Your task to perform on an android device: turn off airplane mode Image 0: 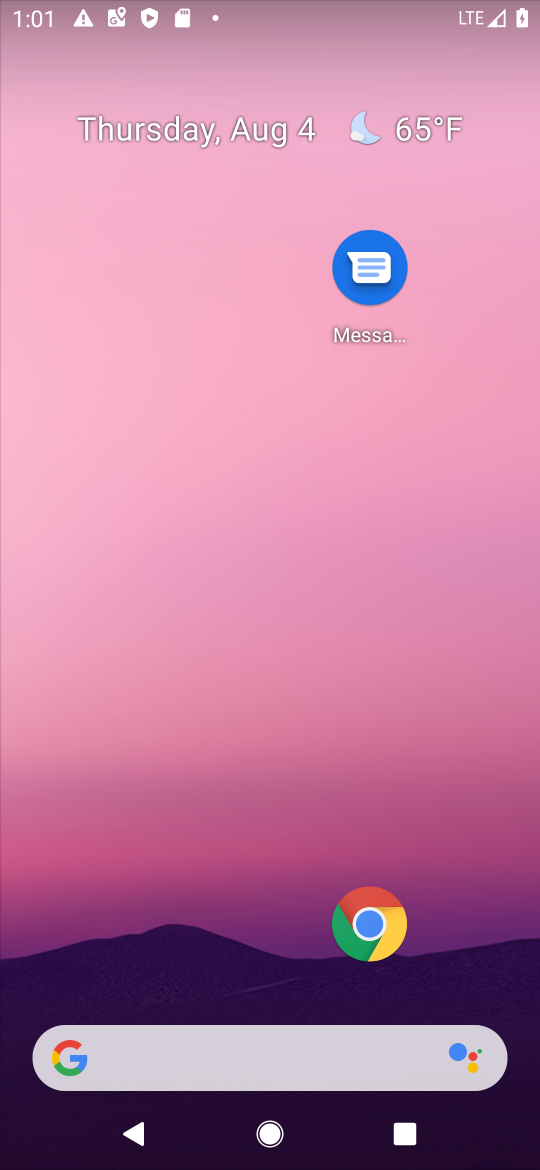
Step 0: drag from (17, 1133) to (228, 24)
Your task to perform on an android device: turn off airplane mode Image 1: 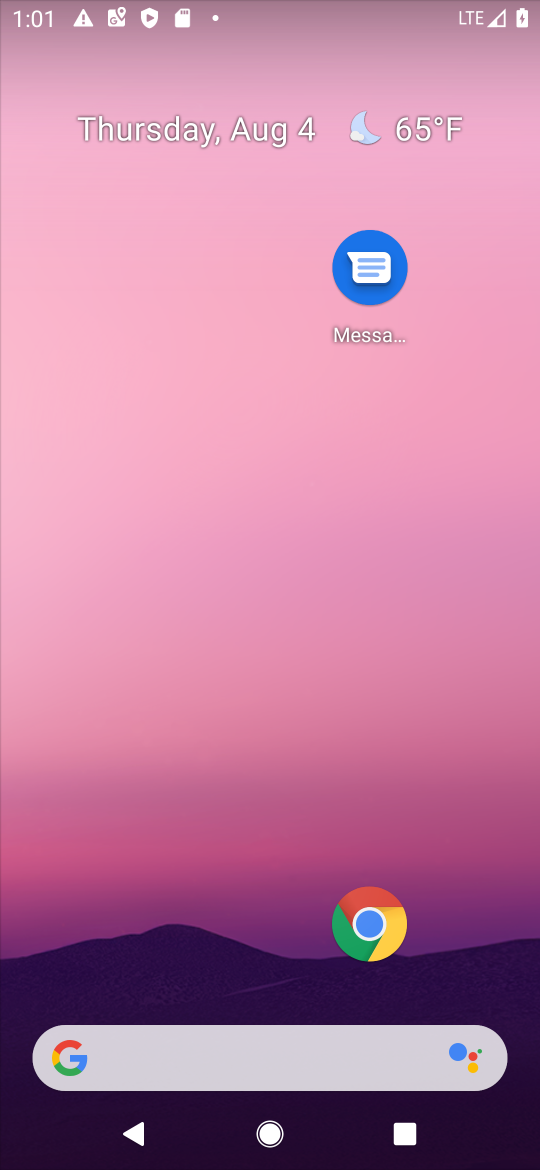
Step 1: drag from (129, 739) to (170, 477)
Your task to perform on an android device: turn off airplane mode Image 2: 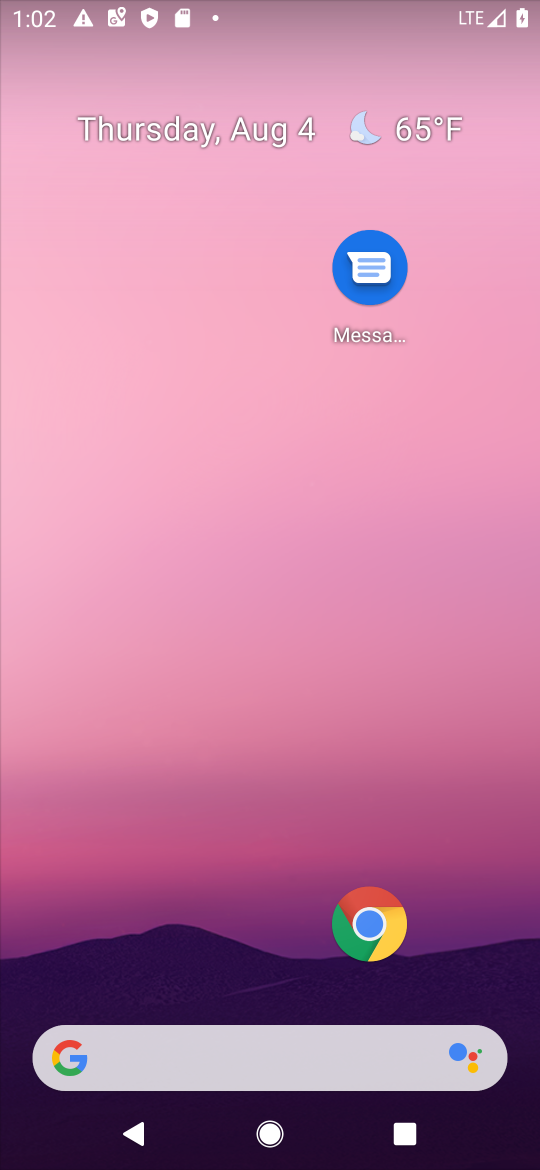
Step 2: drag from (134, 648) to (275, 144)
Your task to perform on an android device: turn off airplane mode Image 3: 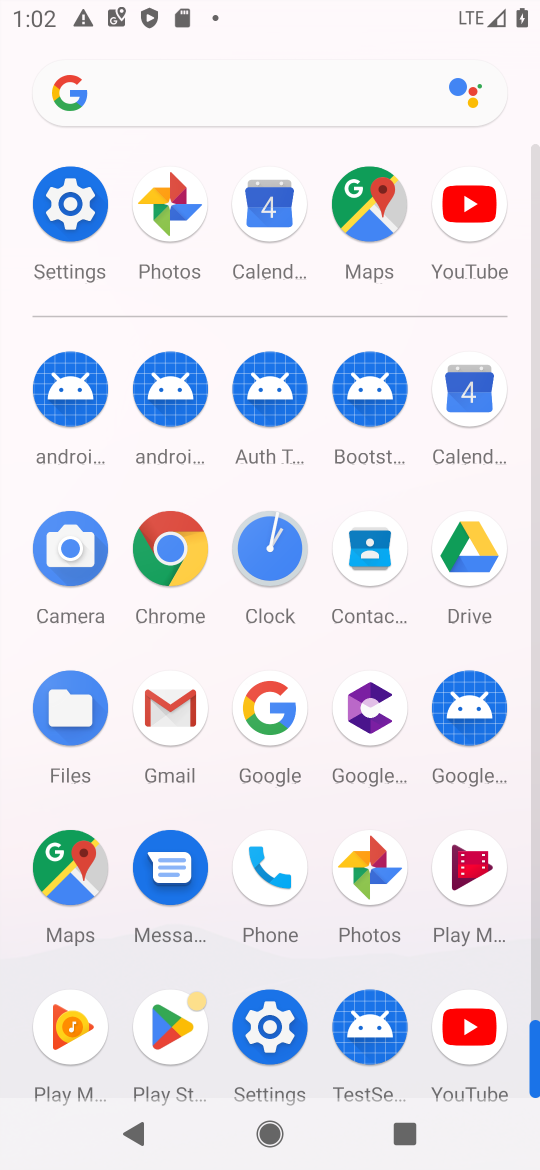
Step 3: click (254, 1025)
Your task to perform on an android device: turn off airplane mode Image 4: 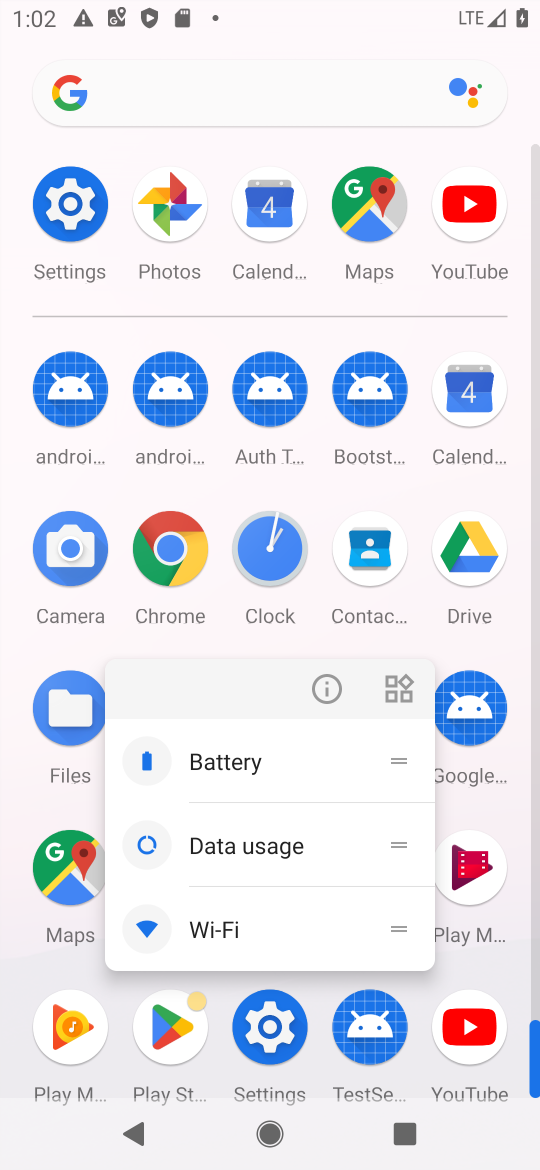
Step 4: click (284, 1026)
Your task to perform on an android device: turn off airplane mode Image 5: 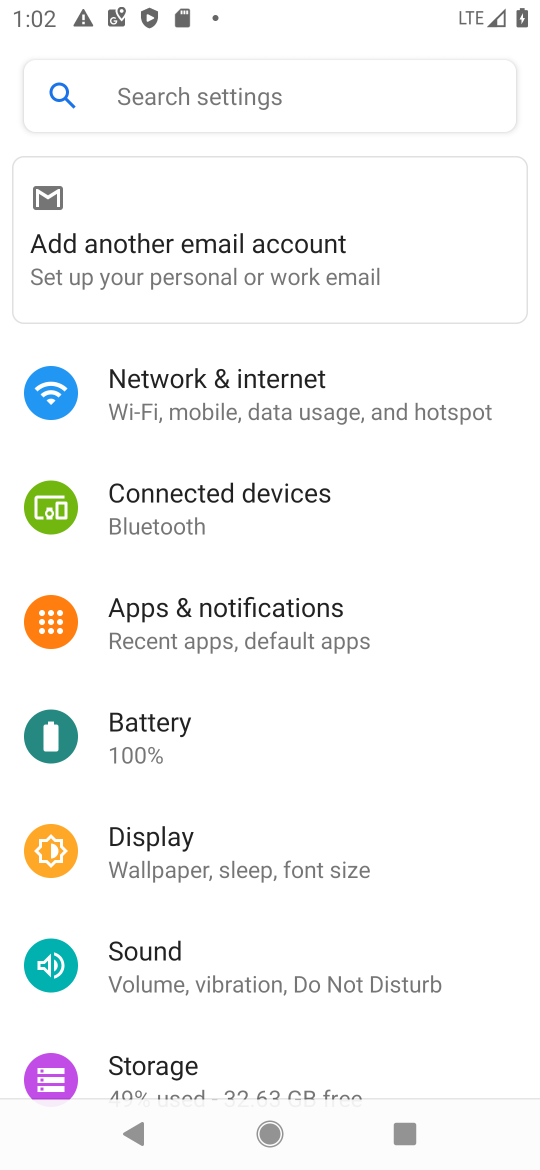
Step 5: click (258, 381)
Your task to perform on an android device: turn off airplane mode Image 6: 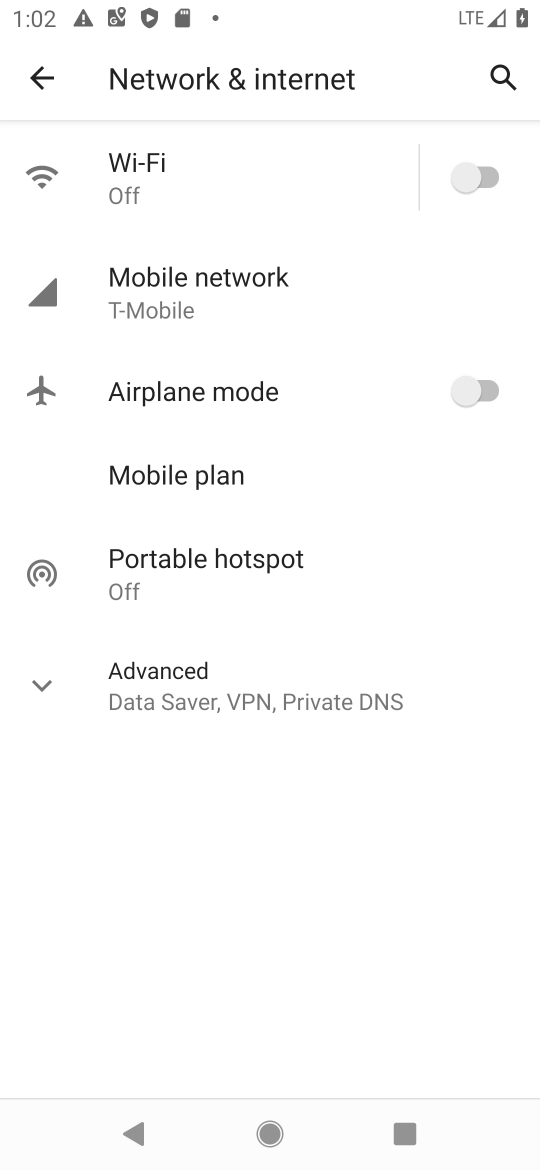
Step 6: task complete